Your task to perform on an android device: Open Reddit.com Image 0: 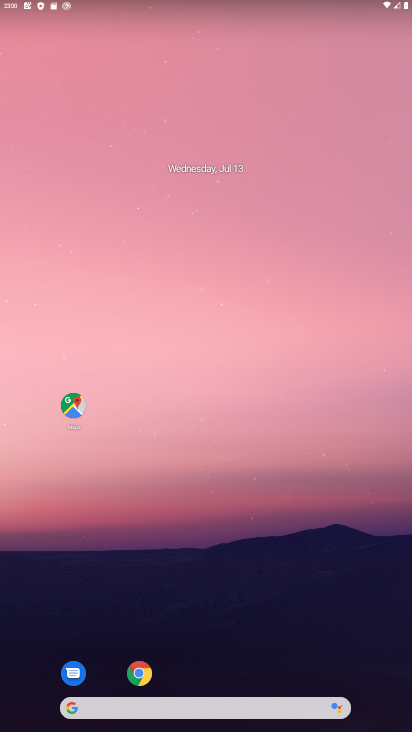
Step 0: click (135, 665)
Your task to perform on an android device: Open Reddit.com Image 1: 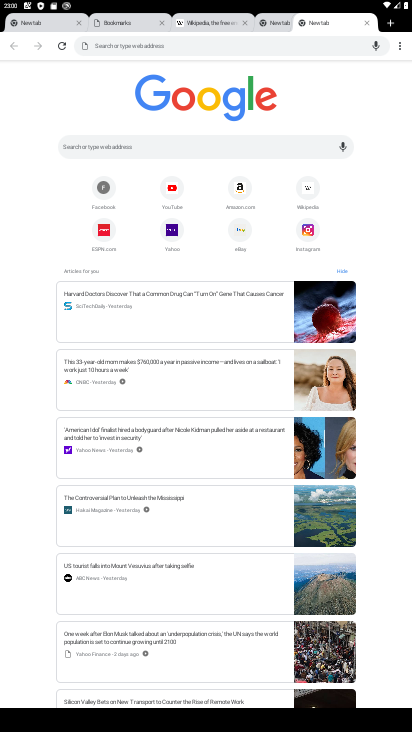
Step 1: click (174, 144)
Your task to perform on an android device: Open Reddit.com Image 2: 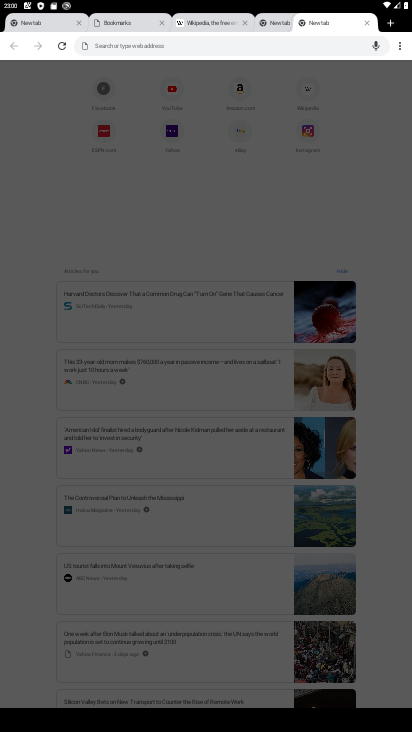
Step 2: type "Reddit.com"
Your task to perform on an android device: Open Reddit.com Image 3: 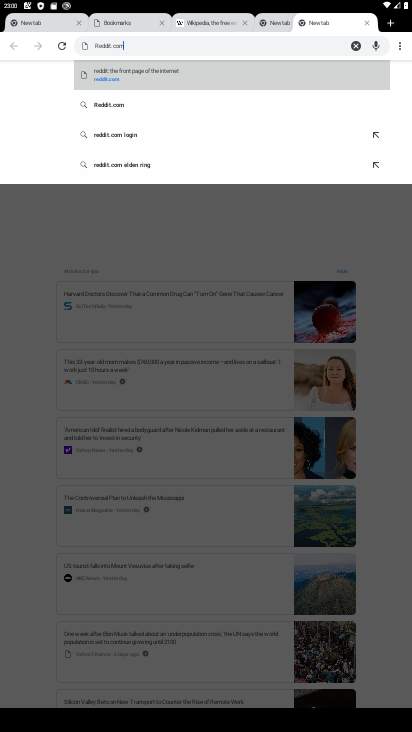
Step 3: click (263, 111)
Your task to perform on an android device: Open Reddit.com Image 4: 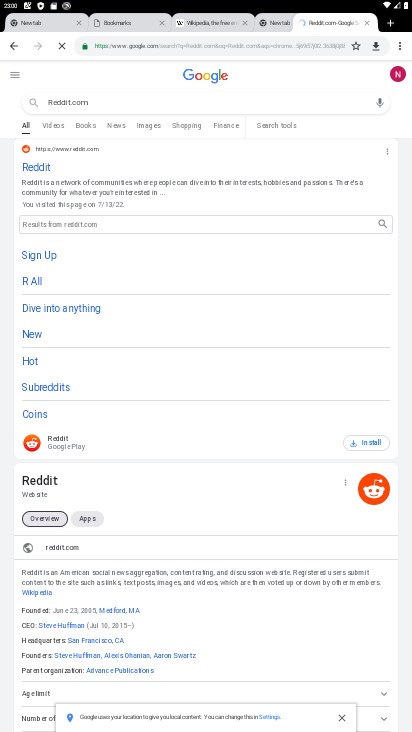
Step 4: click (44, 180)
Your task to perform on an android device: Open Reddit.com Image 5: 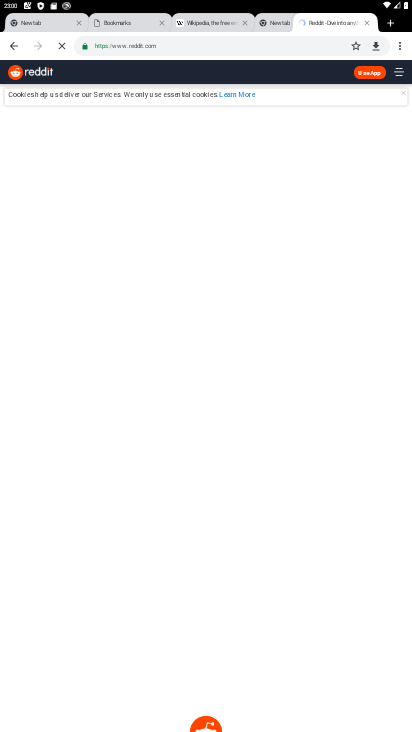
Step 5: task complete